Your task to perform on an android device: move a message to another label in the gmail app Image 0: 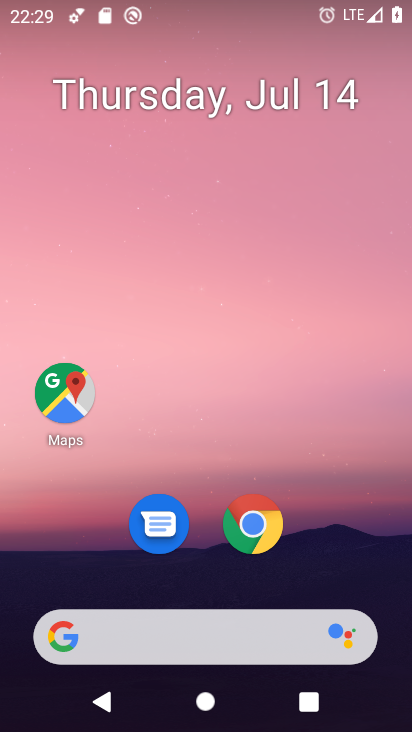
Step 0: drag from (314, 546) to (330, 47)
Your task to perform on an android device: move a message to another label in the gmail app Image 1: 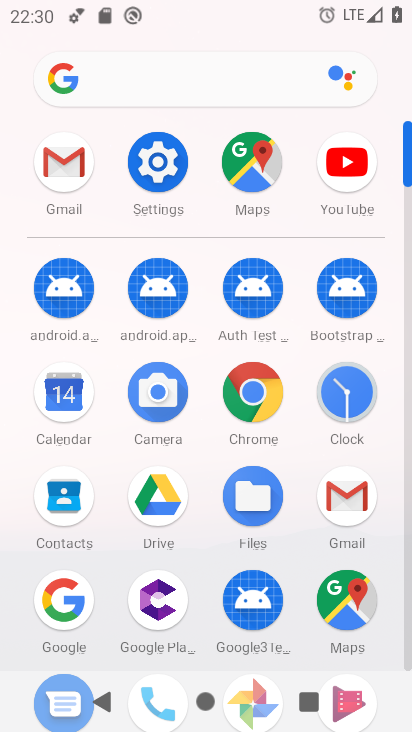
Step 1: click (72, 167)
Your task to perform on an android device: move a message to another label in the gmail app Image 2: 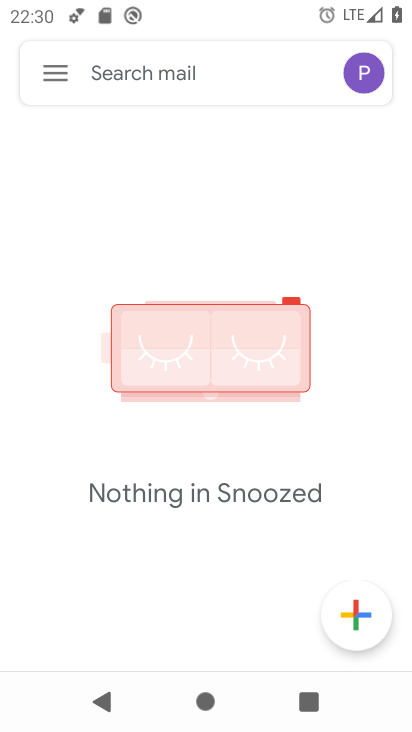
Step 2: click (54, 71)
Your task to perform on an android device: move a message to another label in the gmail app Image 3: 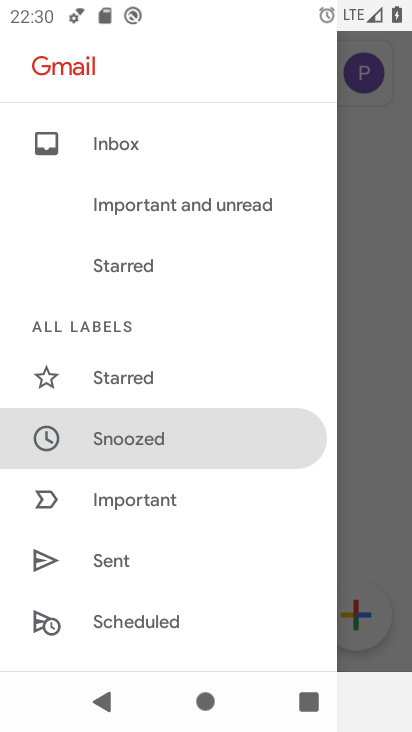
Step 3: drag from (220, 498) to (281, 109)
Your task to perform on an android device: move a message to another label in the gmail app Image 4: 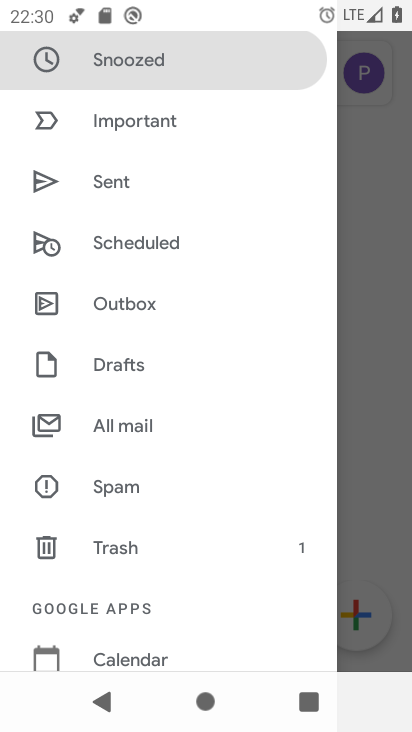
Step 4: click (148, 421)
Your task to perform on an android device: move a message to another label in the gmail app Image 5: 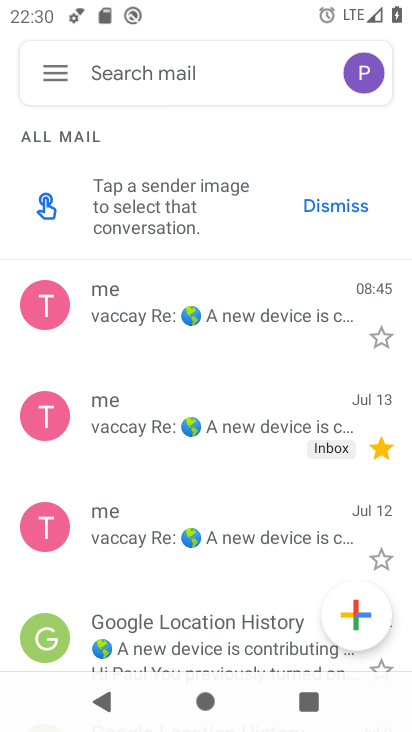
Step 5: click (258, 302)
Your task to perform on an android device: move a message to another label in the gmail app Image 6: 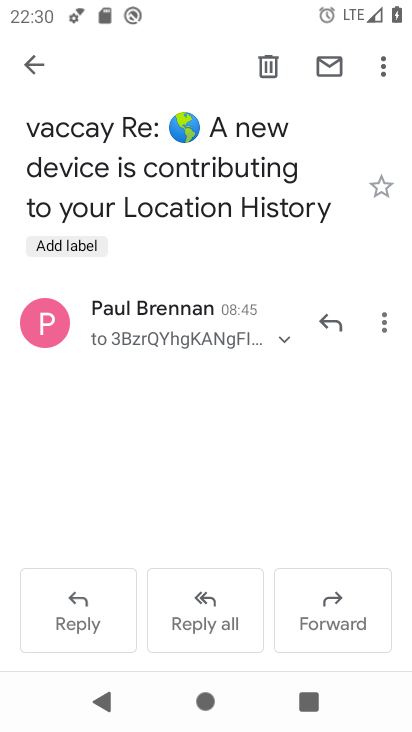
Step 6: click (382, 60)
Your task to perform on an android device: move a message to another label in the gmail app Image 7: 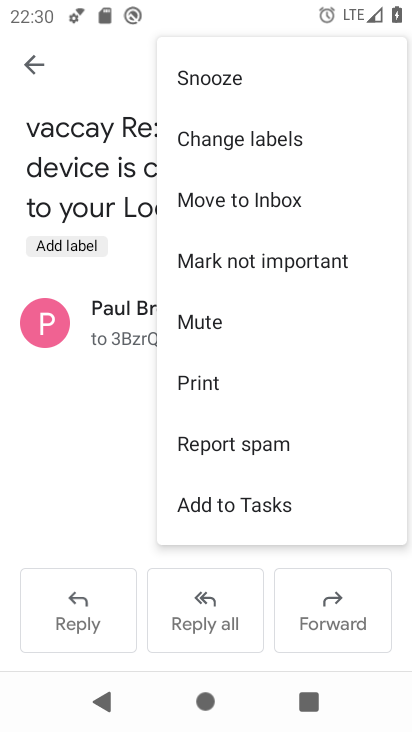
Step 7: click (290, 143)
Your task to perform on an android device: move a message to another label in the gmail app Image 8: 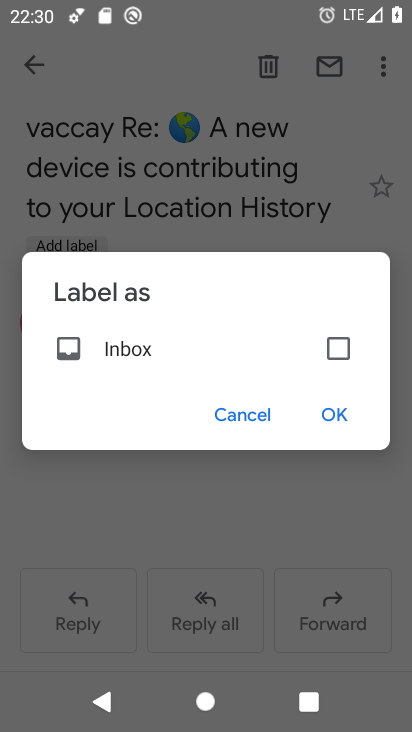
Step 8: click (338, 344)
Your task to perform on an android device: move a message to another label in the gmail app Image 9: 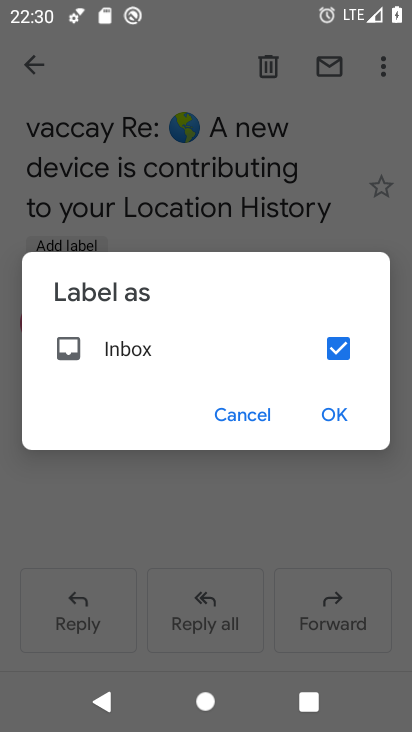
Step 9: click (336, 408)
Your task to perform on an android device: move a message to another label in the gmail app Image 10: 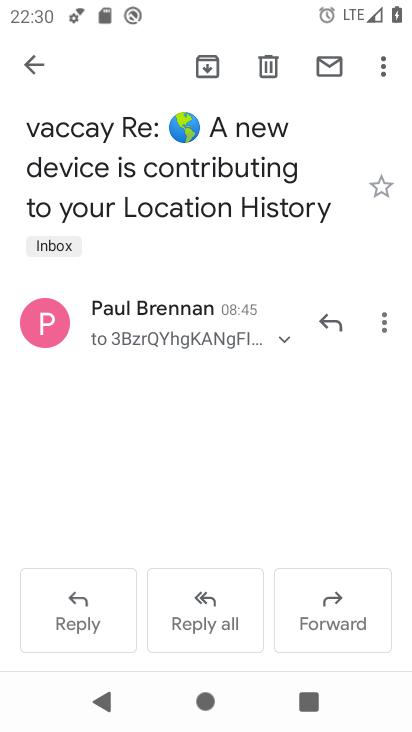
Step 10: task complete